Your task to perform on an android device: see tabs open on other devices in the chrome app Image 0: 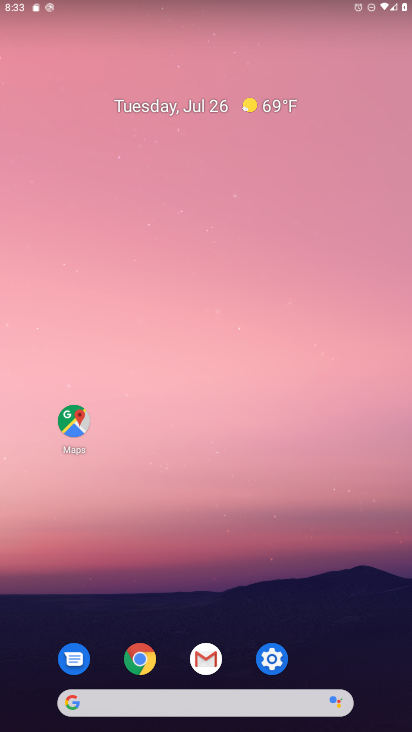
Step 0: click (144, 656)
Your task to perform on an android device: see tabs open on other devices in the chrome app Image 1: 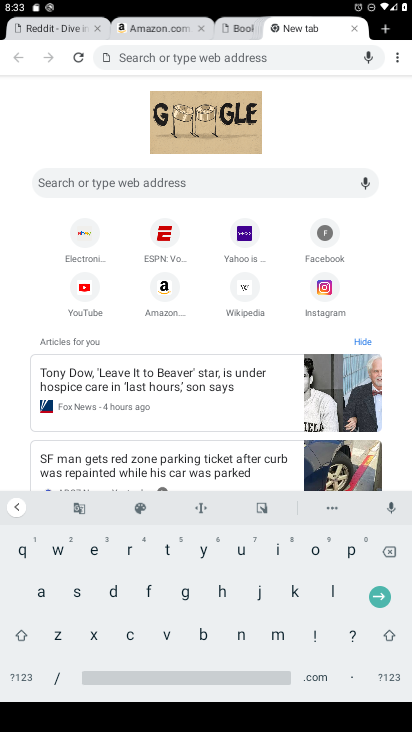
Step 1: click (380, 29)
Your task to perform on an android device: see tabs open on other devices in the chrome app Image 2: 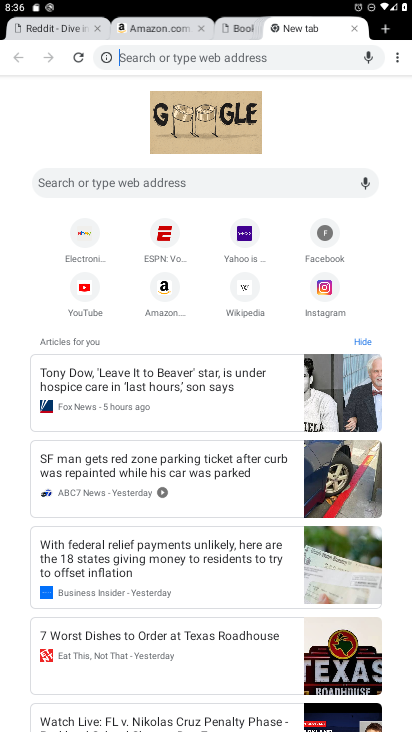
Step 2: task complete